Your task to perform on an android device: Go to location settings Image 0: 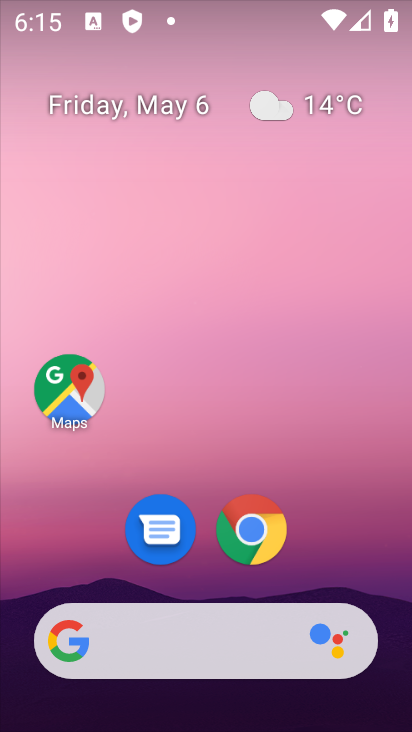
Step 0: drag from (332, 547) to (252, 103)
Your task to perform on an android device: Go to location settings Image 1: 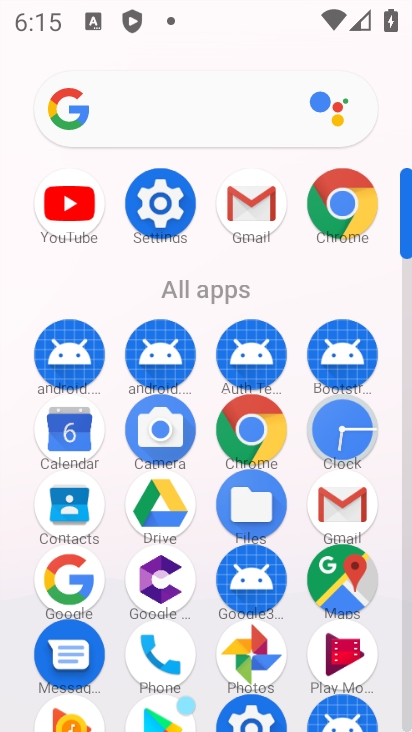
Step 1: click (173, 181)
Your task to perform on an android device: Go to location settings Image 2: 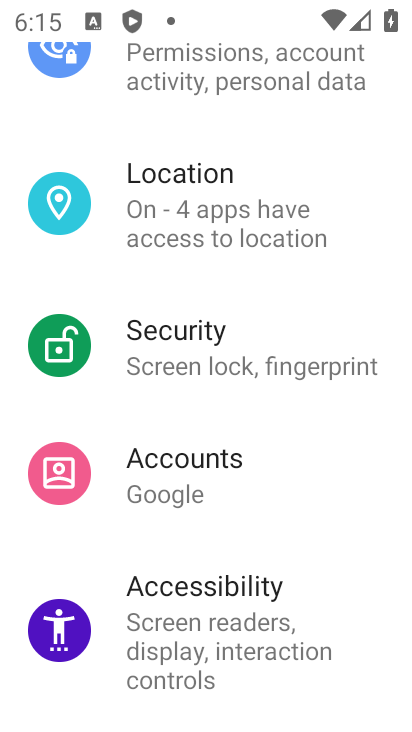
Step 2: click (247, 208)
Your task to perform on an android device: Go to location settings Image 3: 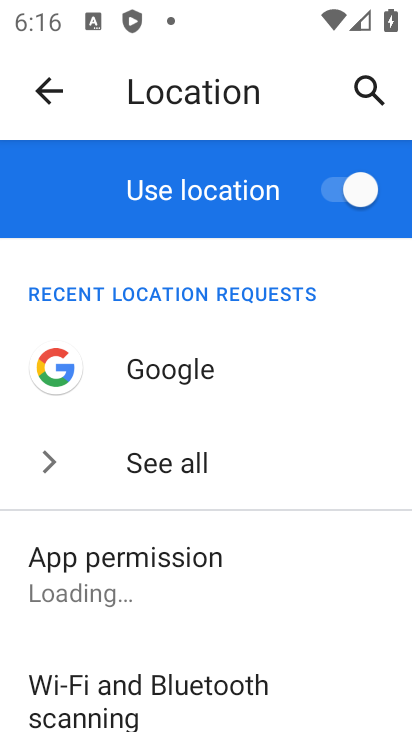
Step 3: task complete